Your task to perform on an android device: turn smart compose on in the gmail app Image 0: 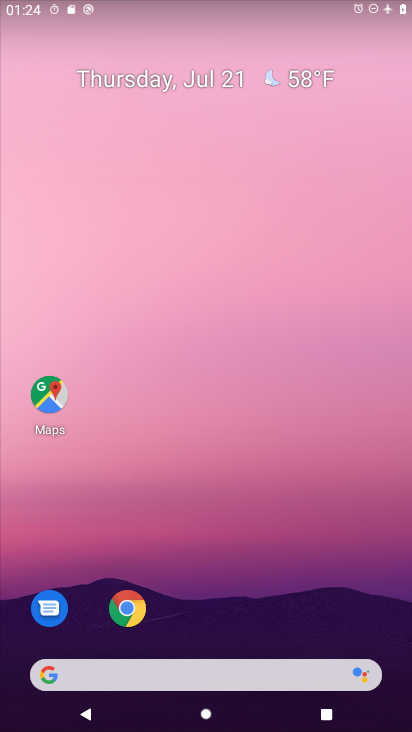
Step 0: press home button
Your task to perform on an android device: turn smart compose on in the gmail app Image 1: 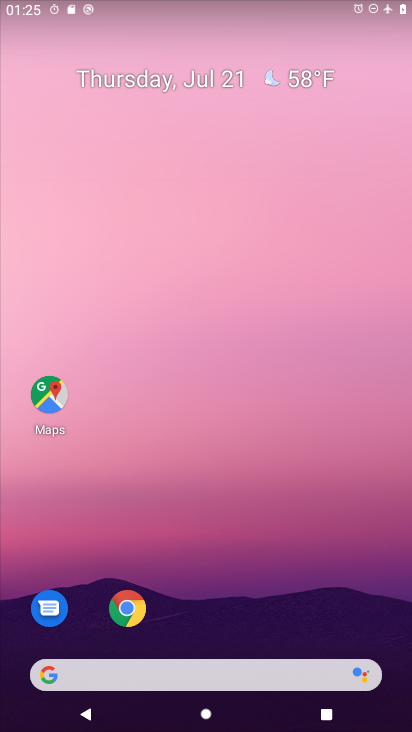
Step 1: drag from (251, 632) to (216, 199)
Your task to perform on an android device: turn smart compose on in the gmail app Image 2: 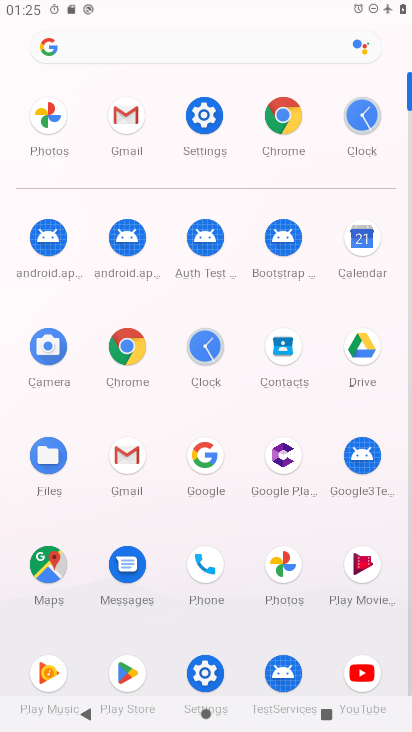
Step 2: click (128, 120)
Your task to perform on an android device: turn smart compose on in the gmail app Image 3: 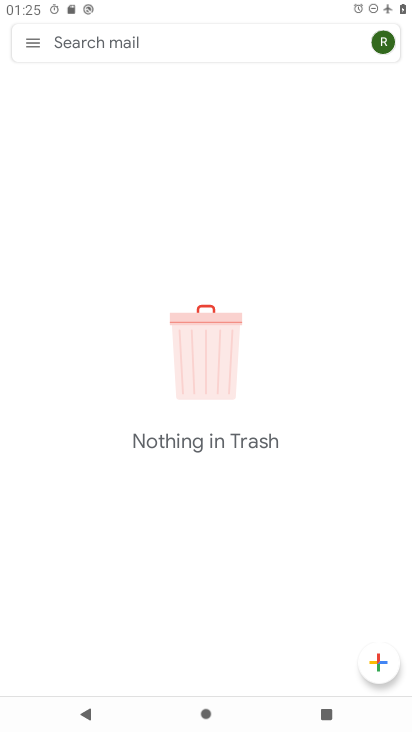
Step 3: click (41, 47)
Your task to perform on an android device: turn smart compose on in the gmail app Image 4: 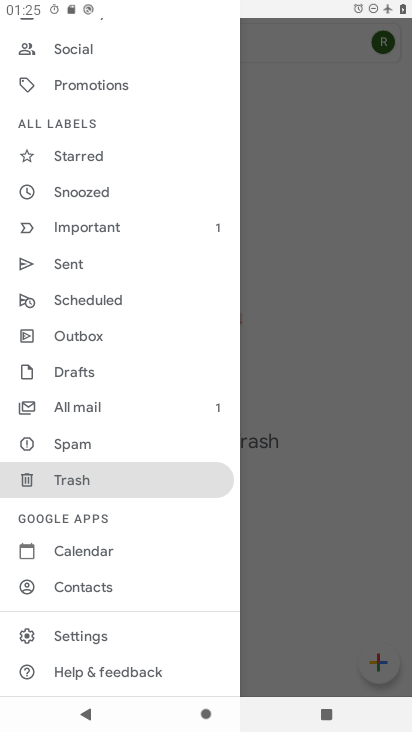
Step 4: click (87, 635)
Your task to perform on an android device: turn smart compose on in the gmail app Image 5: 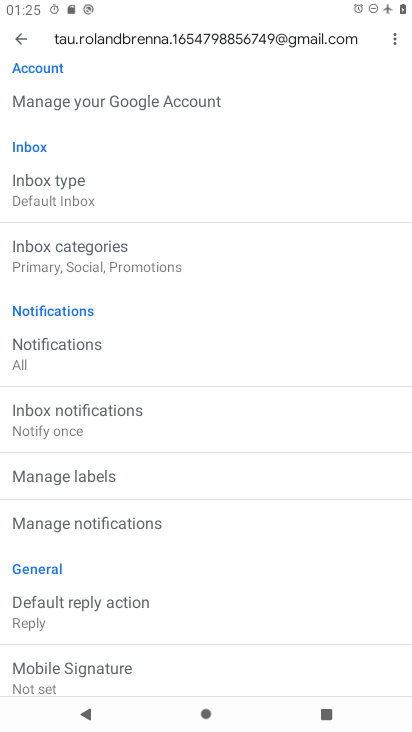
Step 5: task complete